Your task to perform on an android device: Set the phone to "Do not disturb". Image 0: 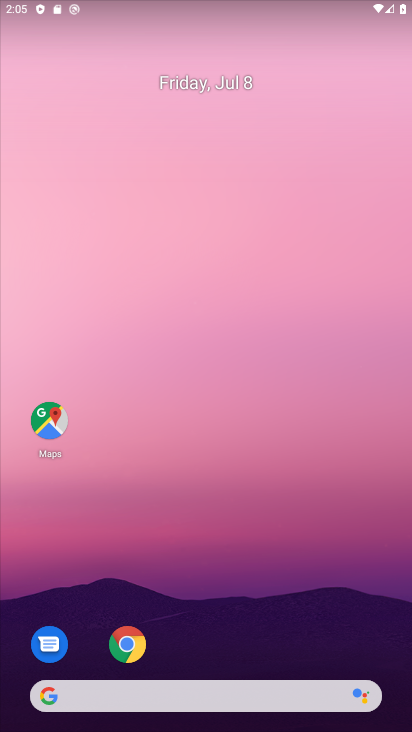
Step 0: click (275, 614)
Your task to perform on an android device: Set the phone to "Do not disturb". Image 1: 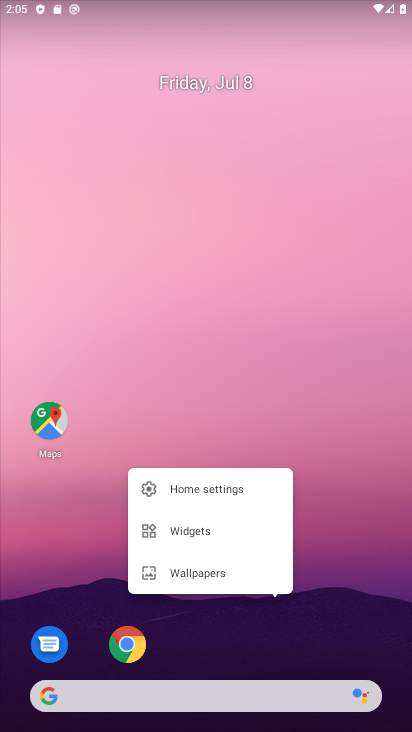
Step 1: drag from (138, 119) to (140, 436)
Your task to perform on an android device: Set the phone to "Do not disturb". Image 2: 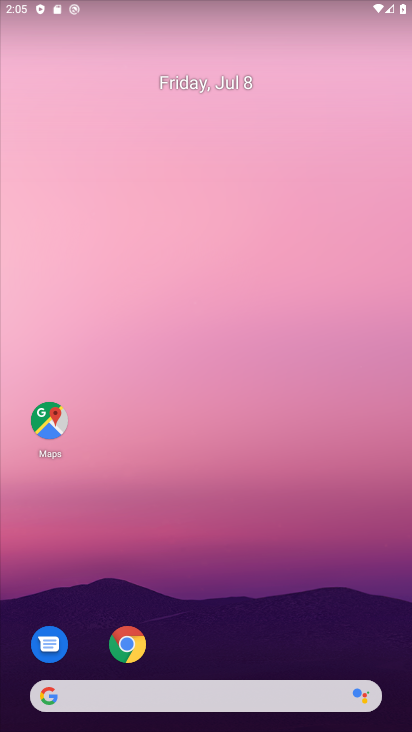
Step 2: drag from (108, 0) to (115, 412)
Your task to perform on an android device: Set the phone to "Do not disturb". Image 3: 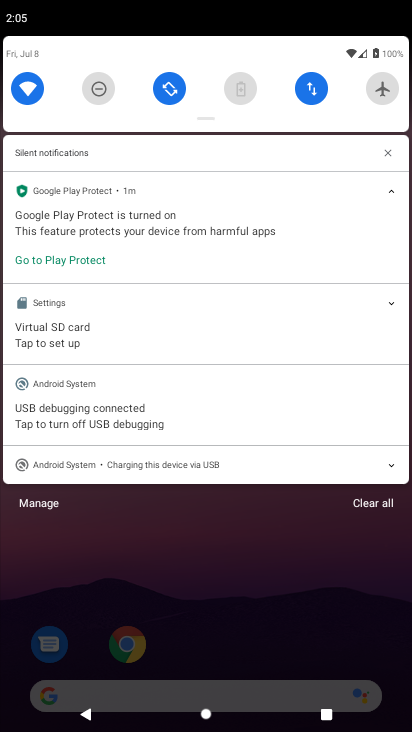
Step 3: click (97, 82)
Your task to perform on an android device: Set the phone to "Do not disturb". Image 4: 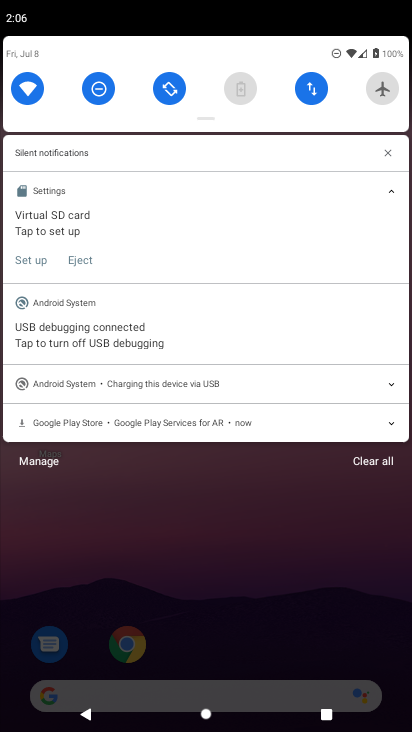
Step 4: task complete